Your task to perform on an android device: Open the Play Movies app and select the watchlist tab. Image 0: 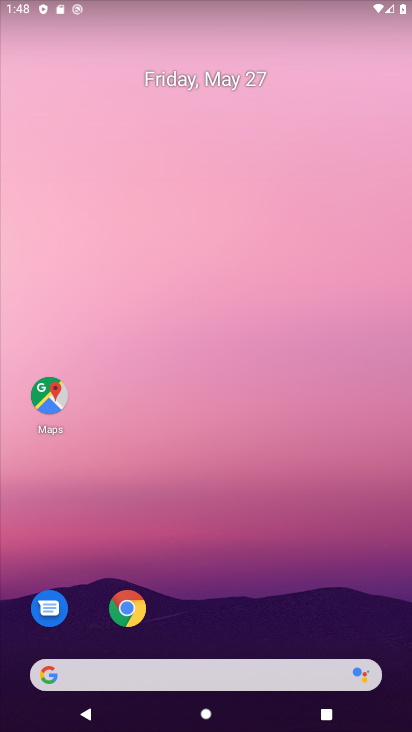
Step 0: drag from (256, 641) to (256, 133)
Your task to perform on an android device: Open the Play Movies app and select the watchlist tab. Image 1: 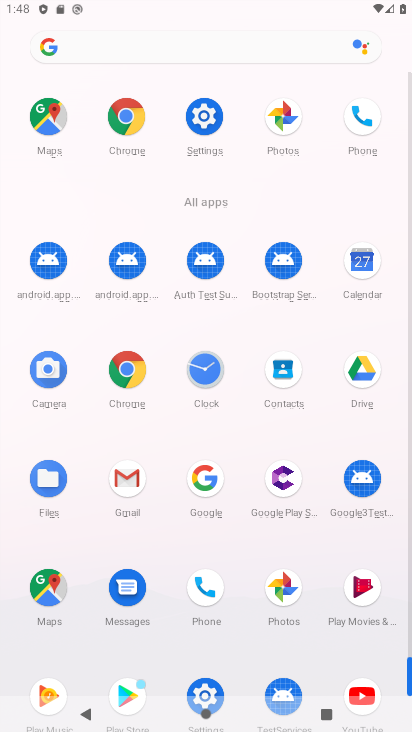
Step 1: drag from (239, 654) to (250, 272)
Your task to perform on an android device: Open the Play Movies app and select the watchlist tab. Image 2: 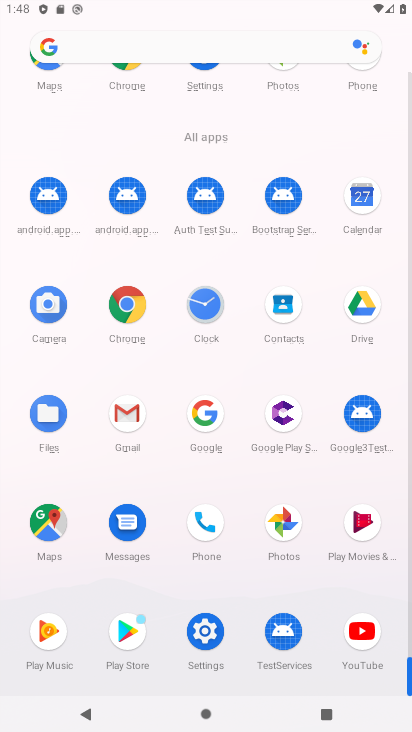
Step 2: click (362, 523)
Your task to perform on an android device: Open the Play Movies app and select the watchlist tab. Image 3: 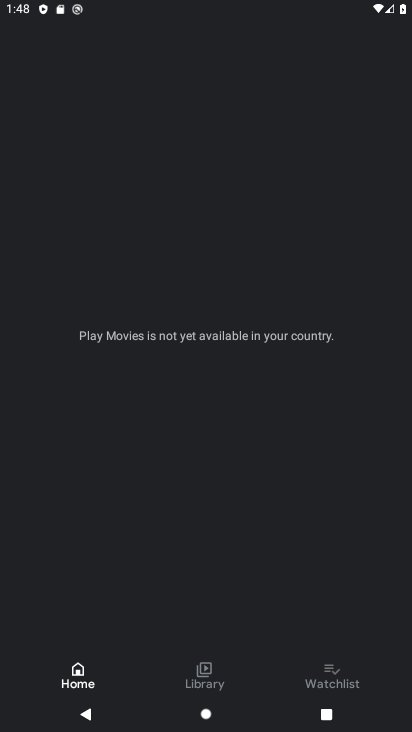
Step 3: click (338, 670)
Your task to perform on an android device: Open the Play Movies app and select the watchlist tab. Image 4: 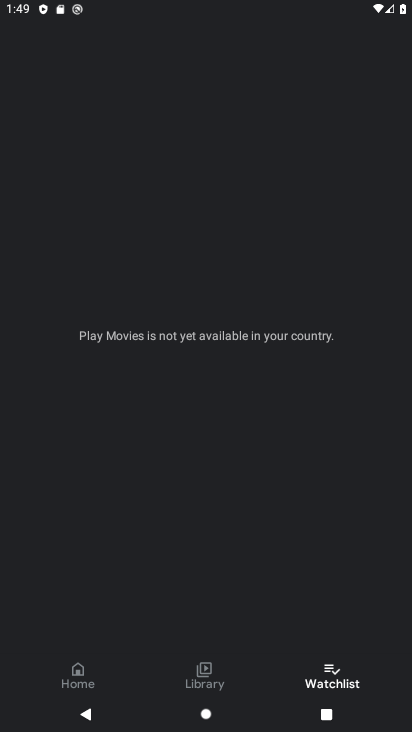
Step 4: task complete